Your task to perform on an android device: Go to notification settings Image 0: 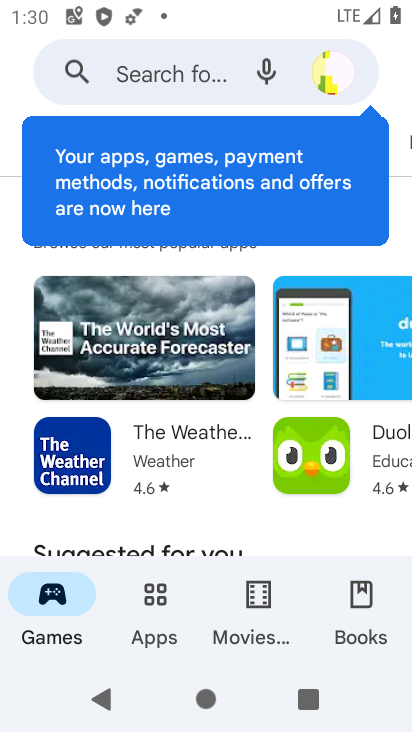
Step 0: press home button
Your task to perform on an android device: Go to notification settings Image 1: 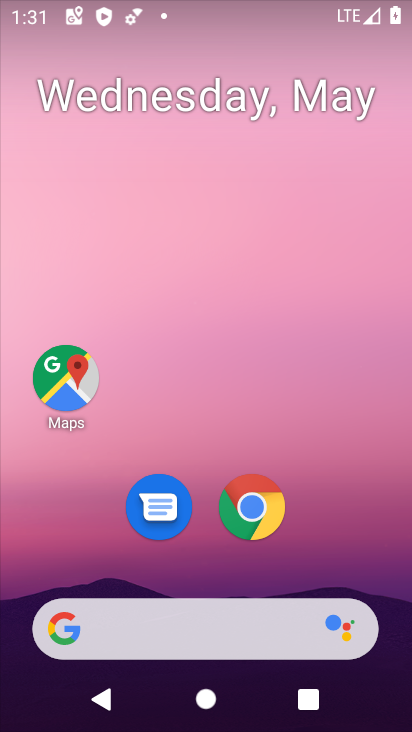
Step 1: drag from (333, 583) to (295, 211)
Your task to perform on an android device: Go to notification settings Image 2: 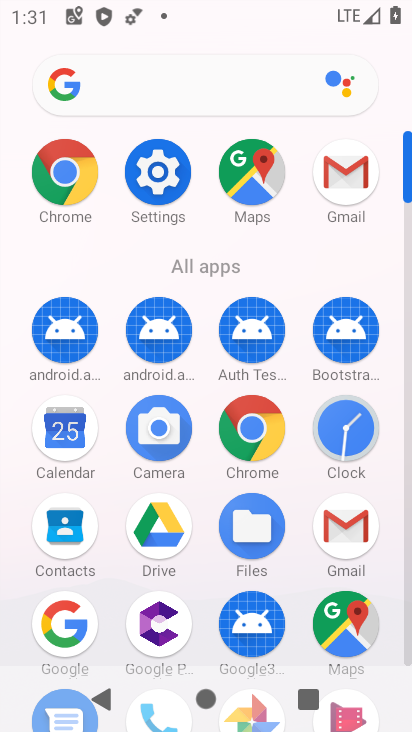
Step 2: click (163, 188)
Your task to perform on an android device: Go to notification settings Image 3: 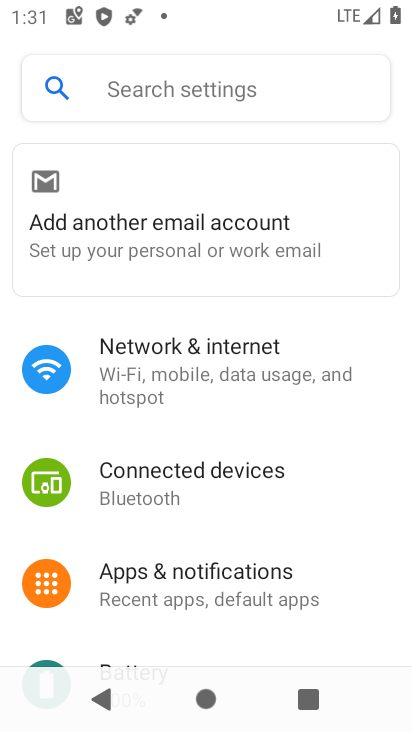
Step 3: click (224, 575)
Your task to perform on an android device: Go to notification settings Image 4: 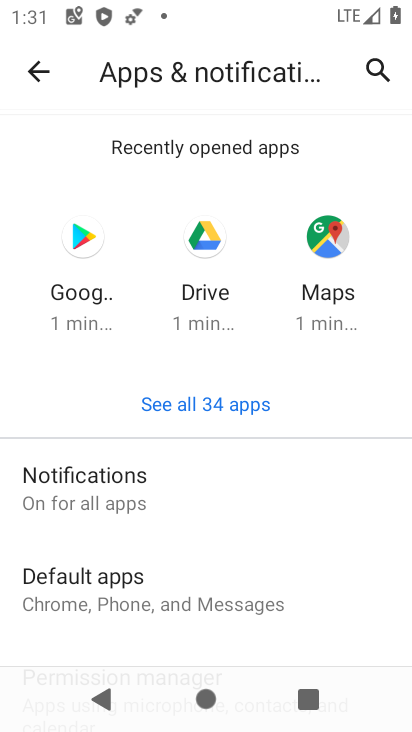
Step 4: click (201, 506)
Your task to perform on an android device: Go to notification settings Image 5: 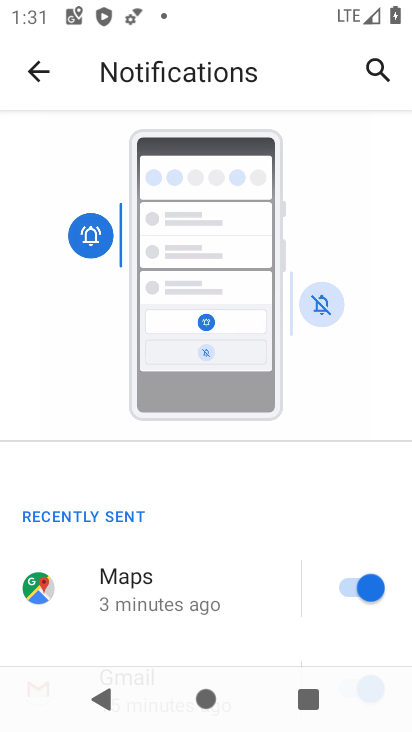
Step 5: task complete